Your task to perform on an android device: turn off picture-in-picture Image 0: 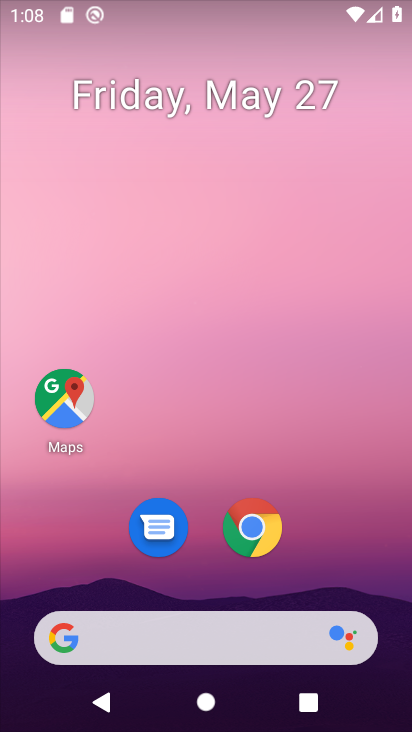
Step 0: task impossible